Your task to perform on an android device: Open calendar and show me the fourth week of next month Image 0: 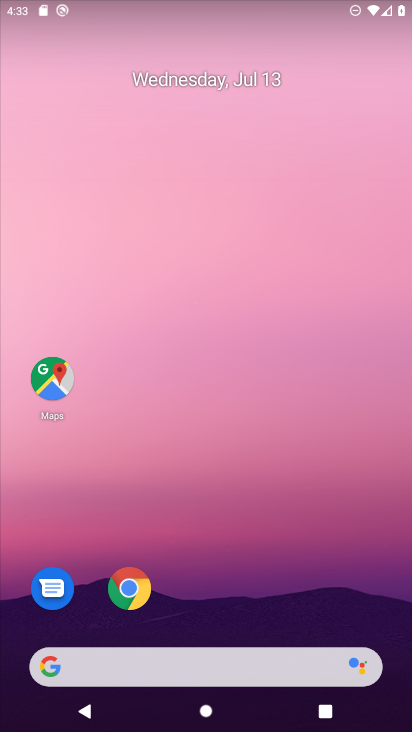
Step 0: drag from (282, 673) to (102, 28)
Your task to perform on an android device: Open calendar and show me the fourth week of next month Image 1: 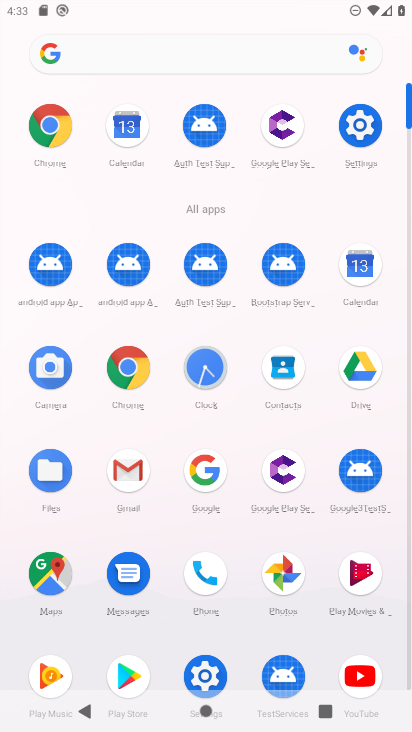
Step 1: click (369, 268)
Your task to perform on an android device: Open calendar and show me the fourth week of next month Image 2: 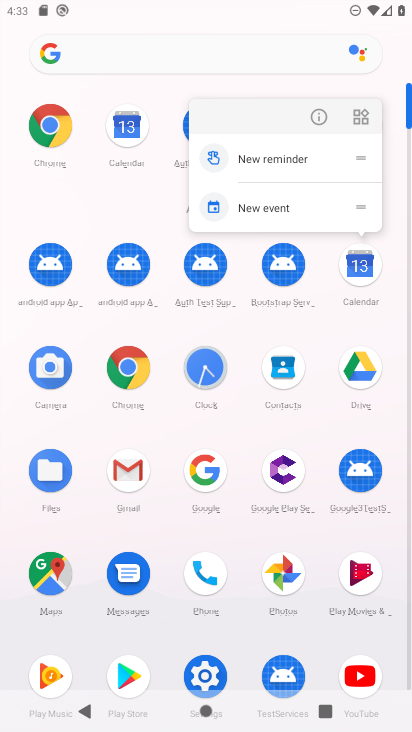
Step 2: click (339, 271)
Your task to perform on an android device: Open calendar and show me the fourth week of next month Image 3: 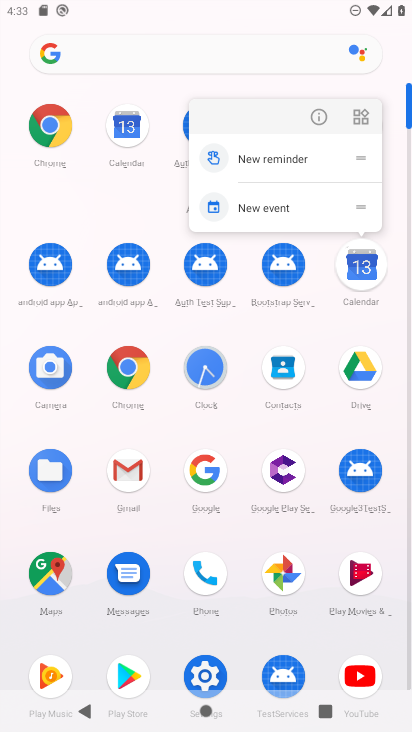
Step 3: click (362, 257)
Your task to perform on an android device: Open calendar and show me the fourth week of next month Image 4: 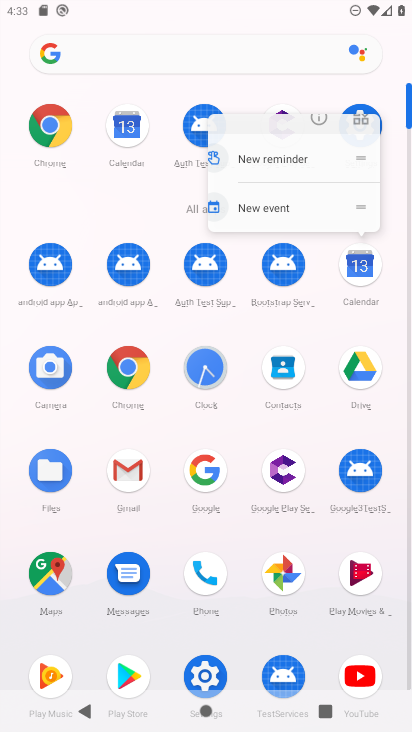
Step 4: click (362, 257)
Your task to perform on an android device: Open calendar and show me the fourth week of next month Image 5: 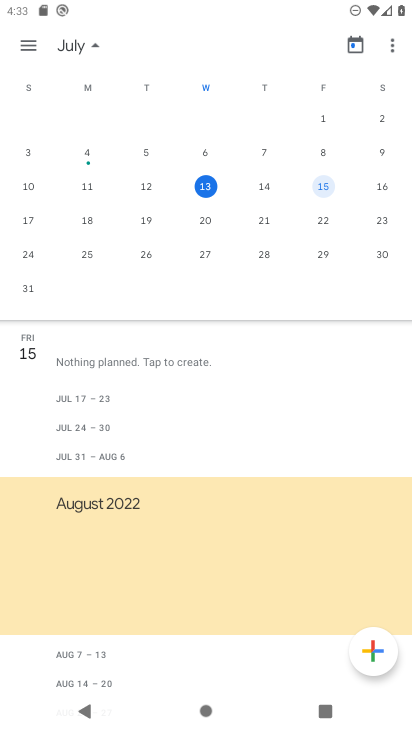
Step 5: click (363, 260)
Your task to perform on an android device: Open calendar and show me the fourth week of next month Image 6: 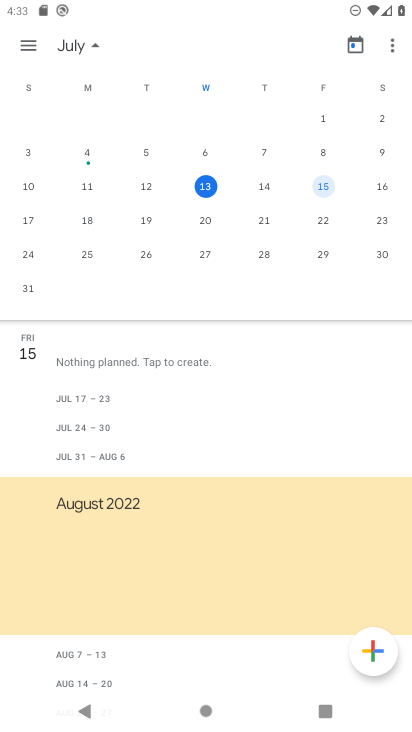
Step 6: drag from (300, 195) to (7, 172)
Your task to perform on an android device: Open calendar and show me the fourth week of next month Image 7: 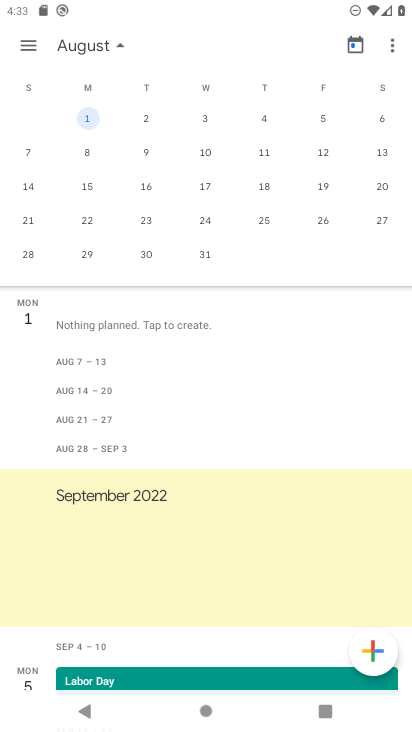
Step 7: drag from (256, 148) to (27, 205)
Your task to perform on an android device: Open calendar and show me the fourth week of next month Image 8: 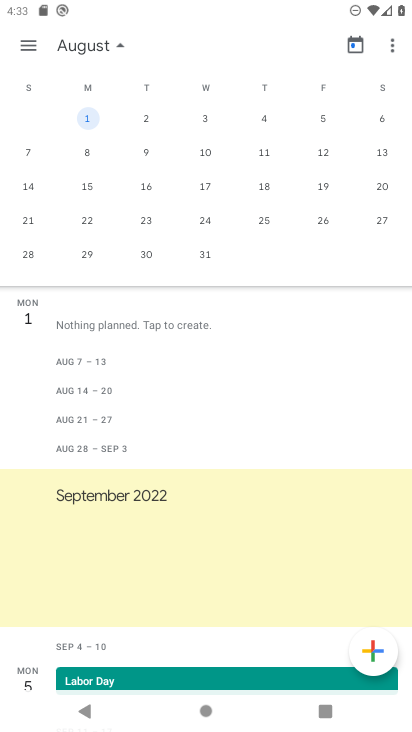
Step 8: drag from (78, 214) to (12, 223)
Your task to perform on an android device: Open calendar and show me the fourth week of next month Image 9: 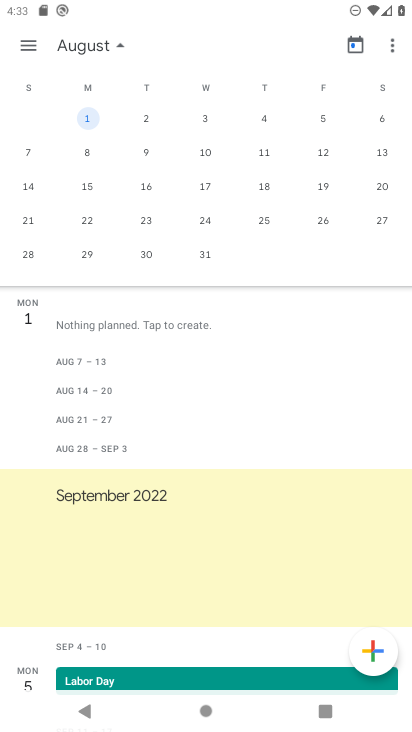
Step 9: click (143, 184)
Your task to perform on an android device: Open calendar and show me the fourth week of next month Image 10: 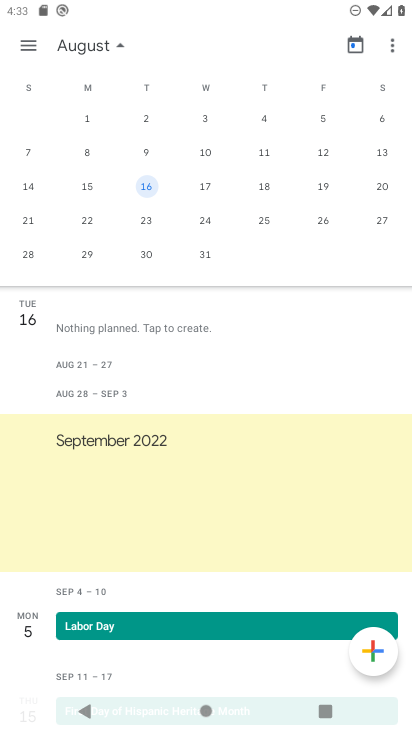
Step 10: click (144, 185)
Your task to perform on an android device: Open calendar and show me the fourth week of next month Image 11: 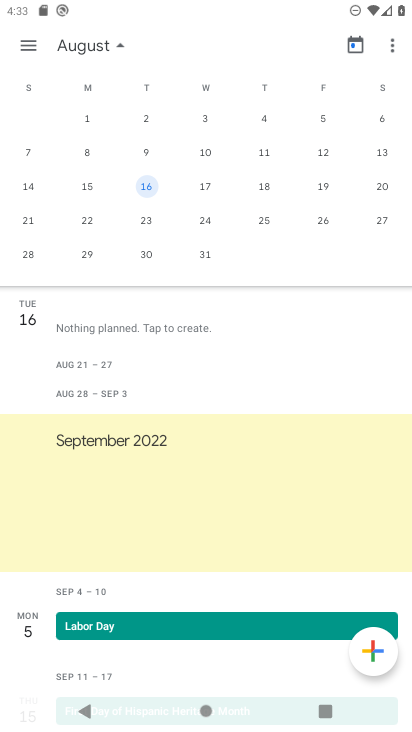
Step 11: click (147, 183)
Your task to perform on an android device: Open calendar and show me the fourth week of next month Image 12: 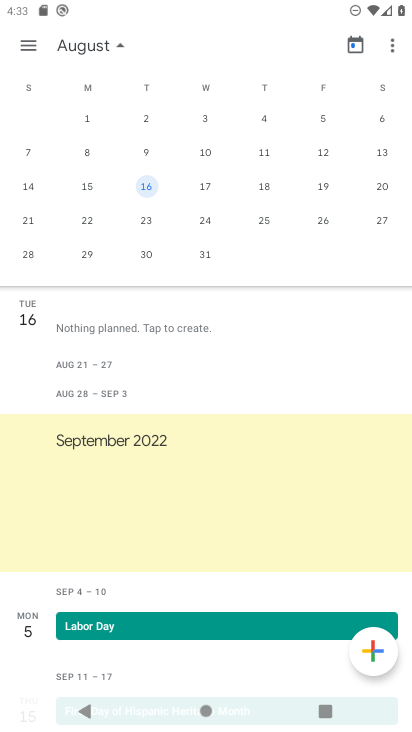
Step 12: click (147, 183)
Your task to perform on an android device: Open calendar and show me the fourth week of next month Image 13: 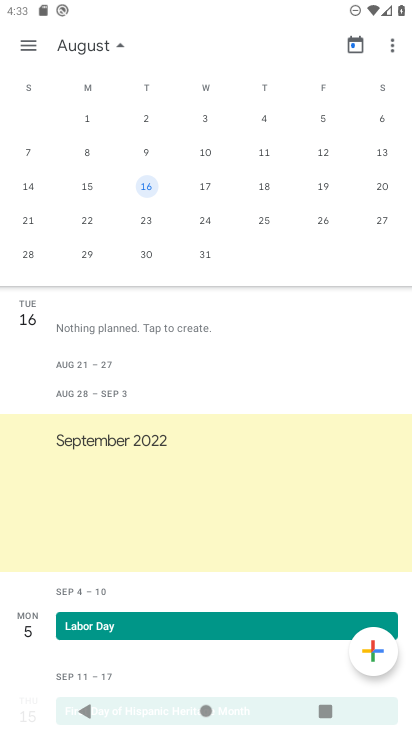
Step 13: task complete